Your task to perform on an android device: choose inbox layout in the gmail app Image 0: 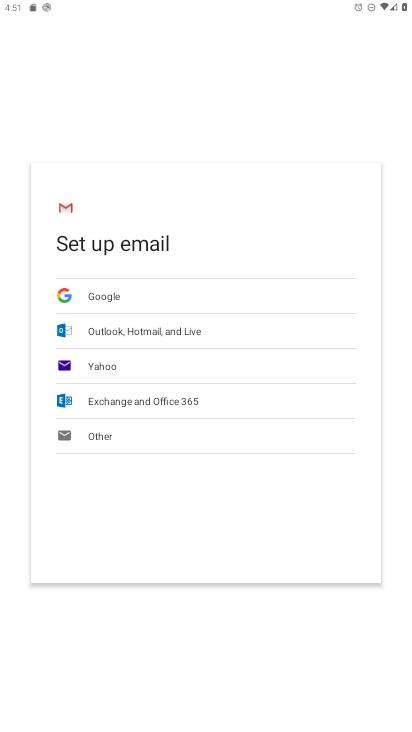
Step 0: press home button
Your task to perform on an android device: choose inbox layout in the gmail app Image 1: 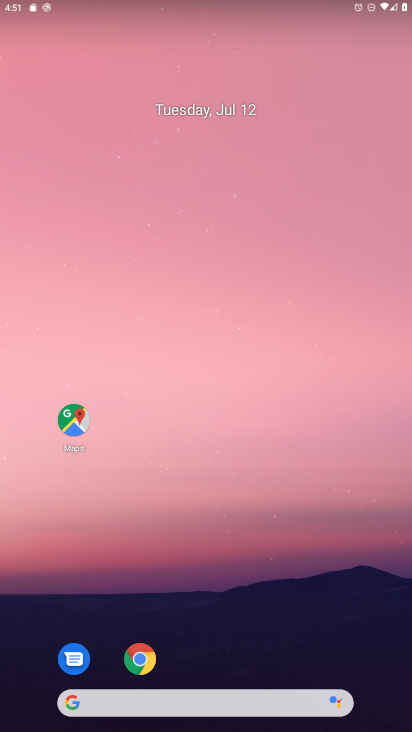
Step 1: drag from (195, 504) to (206, 21)
Your task to perform on an android device: choose inbox layout in the gmail app Image 2: 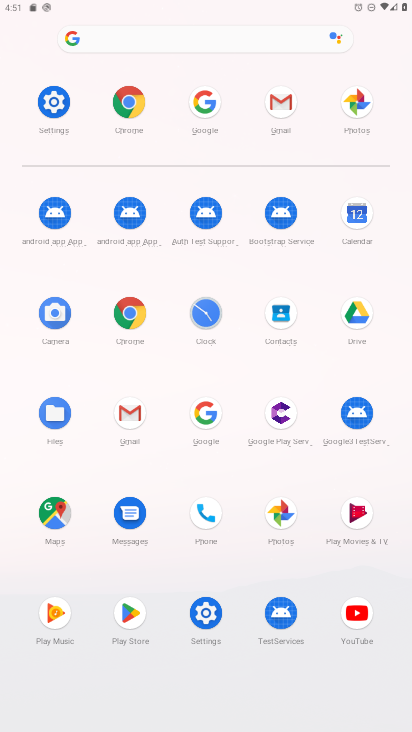
Step 2: click (278, 120)
Your task to perform on an android device: choose inbox layout in the gmail app Image 3: 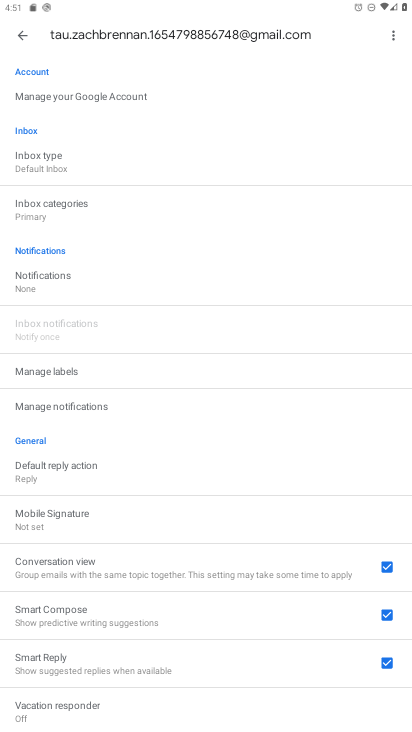
Step 3: click (33, 170)
Your task to perform on an android device: choose inbox layout in the gmail app Image 4: 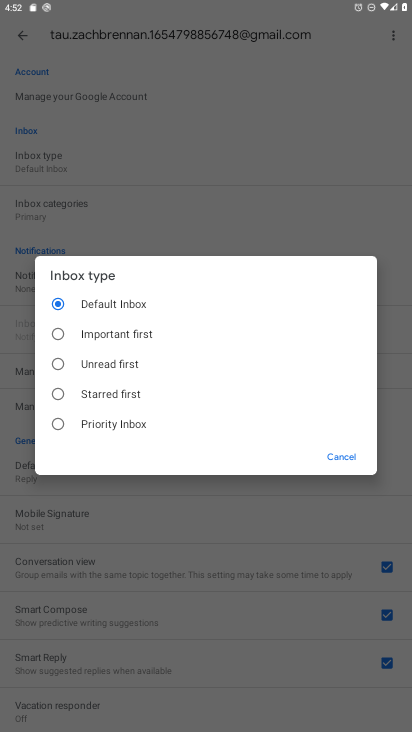
Step 4: click (57, 427)
Your task to perform on an android device: choose inbox layout in the gmail app Image 5: 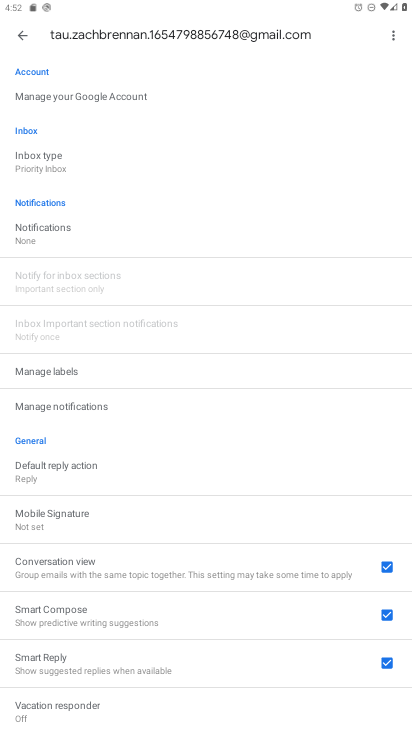
Step 5: task complete